Your task to perform on an android device: Go to display settings Image 0: 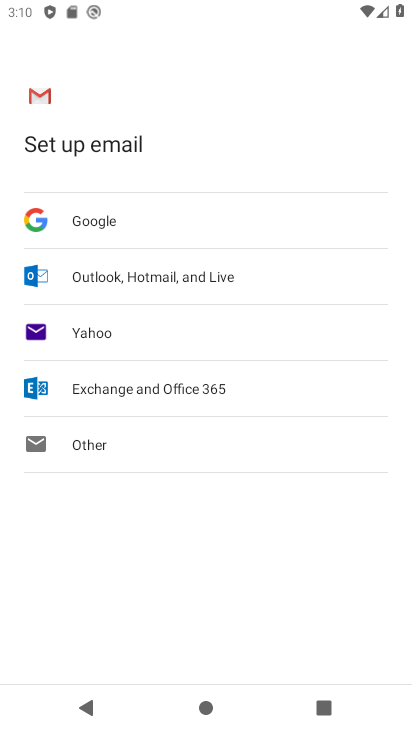
Step 0: press home button
Your task to perform on an android device: Go to display settings Image 1: 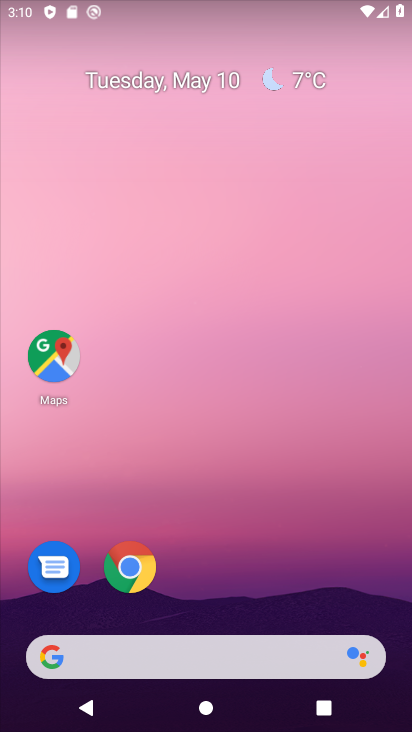
Step 1: drag from (236, 582) to (230, 99)
Your task to perform on an android device: Go to display settings Image 2: 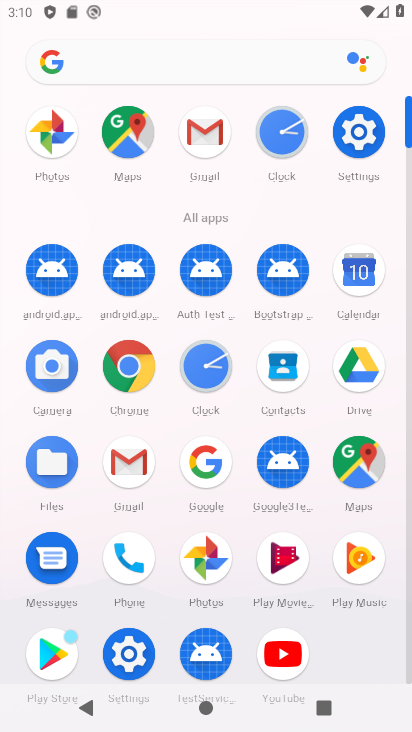
Step 2: click (359, 131)
Your task to perform on an android device: Go to display settings Image 3: 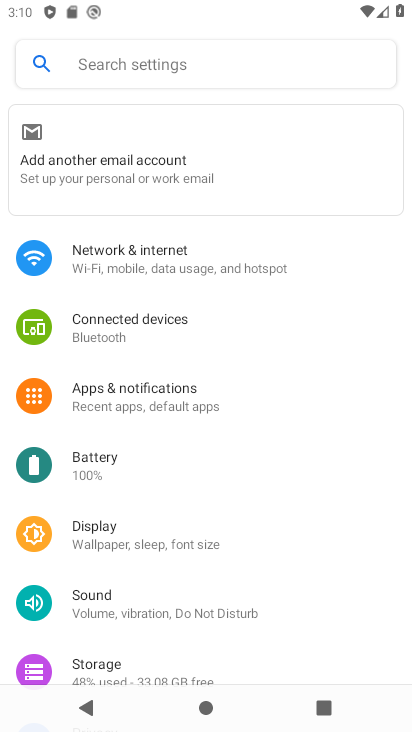
Step 3: click (96, 532)
Your task to perform on an android device: Go to display settings Image 4: 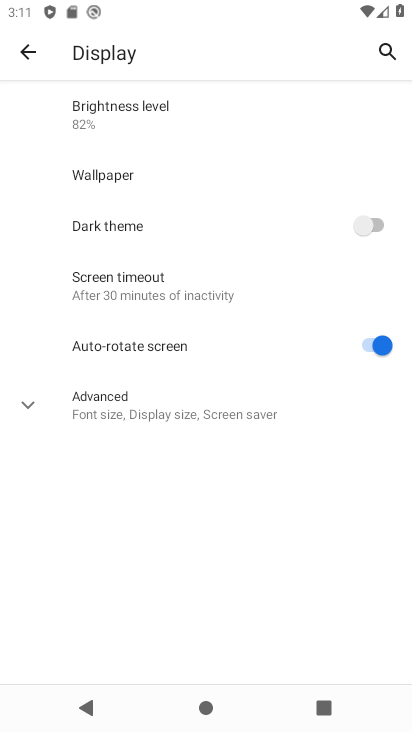
Step 4: task complete